Your task to perform on an android device: Do I have any events this weekend? Image 0: 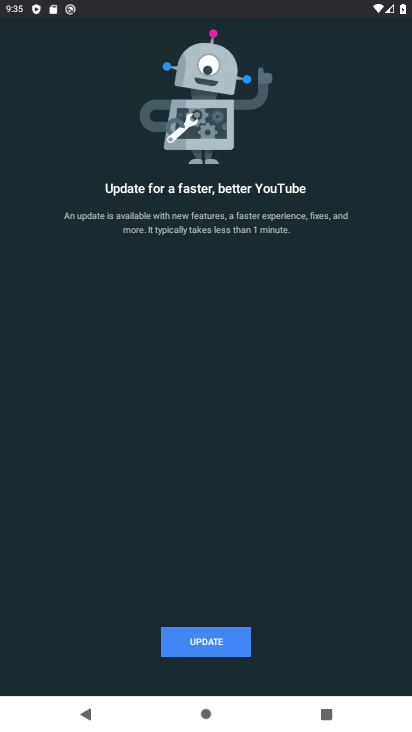
Step 0: press home button
Your task to perform on an android device: Do I have any events this weekend? Image 1: 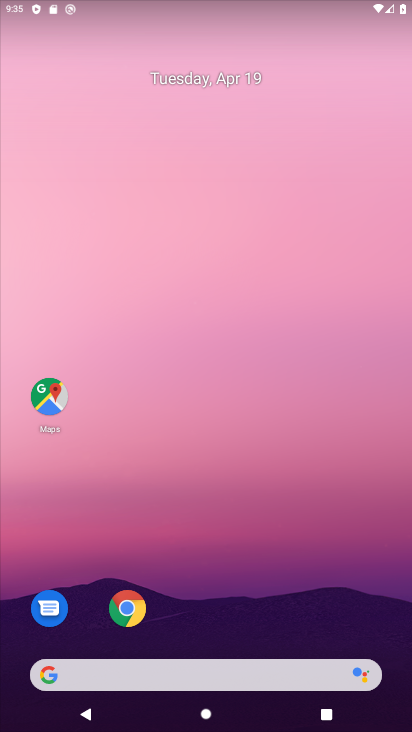
Step 1: drag from (208, 593) to (212, 92)
Your task to perform on an android device: Do I have any events this weekend? Image 2: 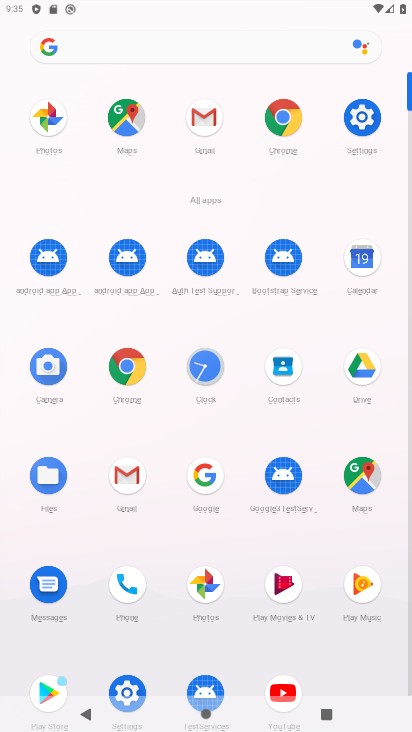
Step 2: click (362, 260)
Your task to perform on an android device: Do I have any events this weekend? Image 3: 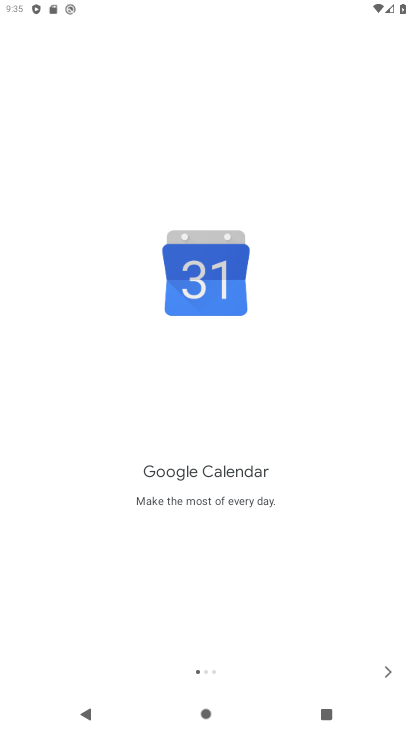
Step 3: click (389, 668)
Your task to perform on an android device: Do I have any events this weekend? Image 4: 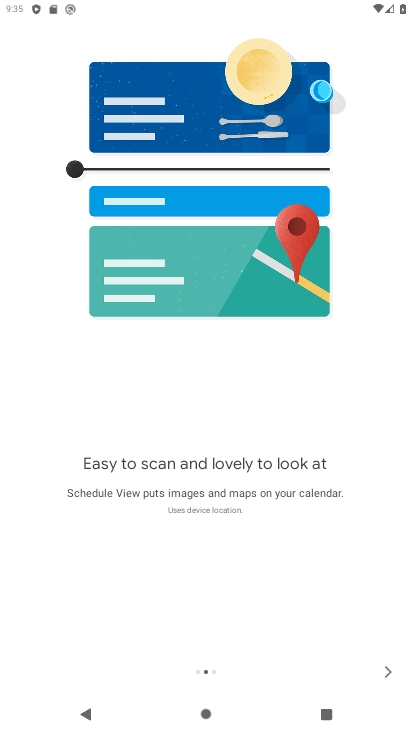
Step 4: click (386, 672)
Your task to perform on an android device: Do I have any events this weekend? Image 5: 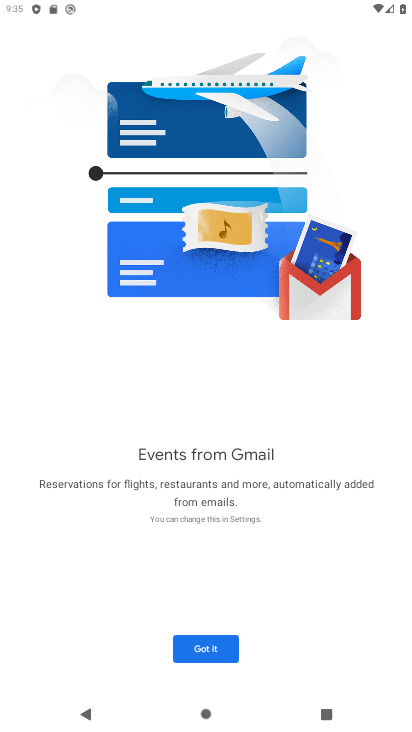
Step 5: click (211, 648)
Your task to perform on an android device: Do I have any events this weekend? Image 6: 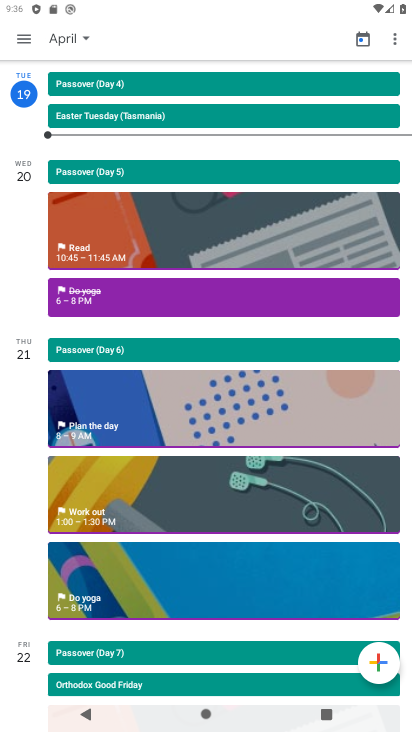
Step 6: click (60, 36)
Your task to perform on an android device: Do I have any events this weekend? Image 7: 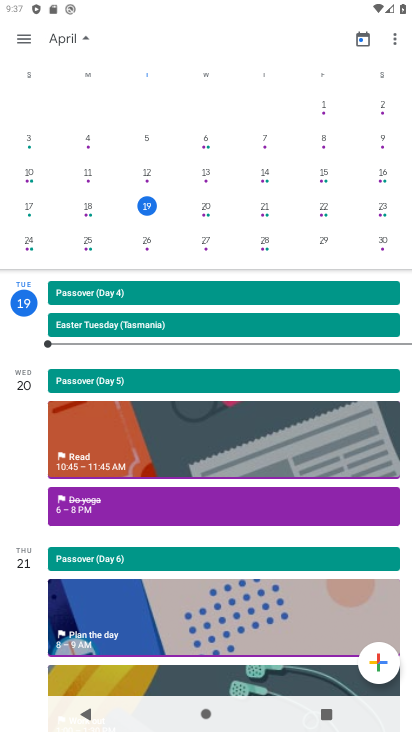
Step 7: click (384, 205)
Your task to perform on an android device: Do I have any events this weekend? Image 8: 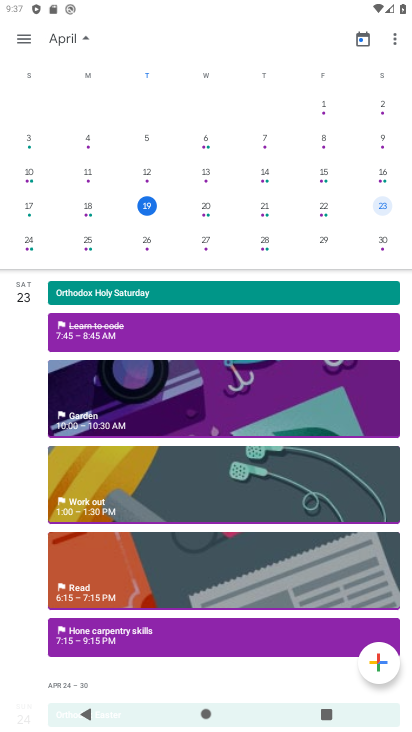
Step 8: task complete